Your task to perform on an android device: open chrome privacy settings Image 0: 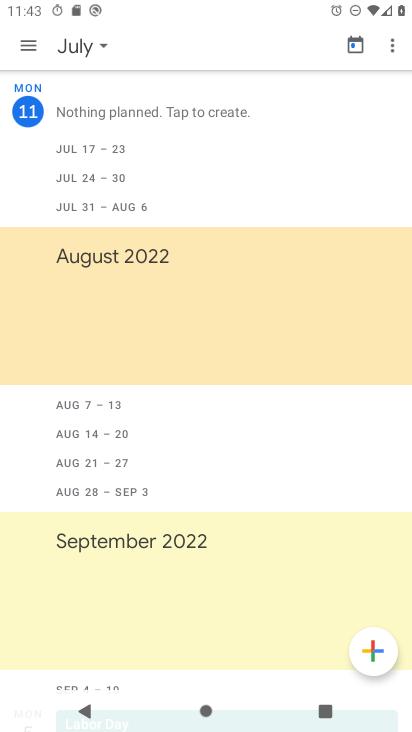
Step 0: press back button
Your task to perform on an android device: open chrome privacy settings Image 1: 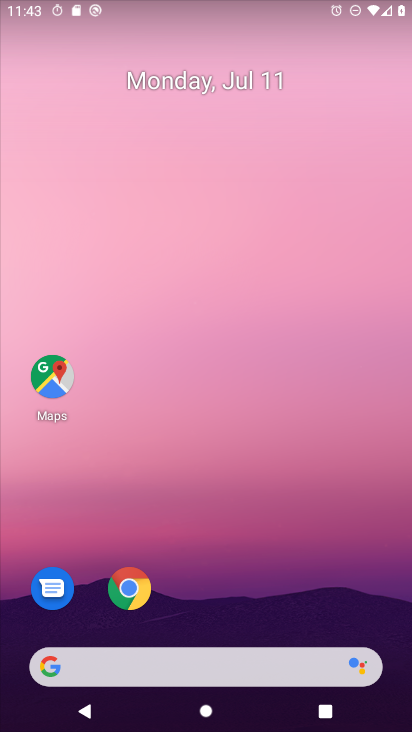
Step 1: click (133, 596)
Your task to perform on an android device: open chrome privacy settings Image 2: 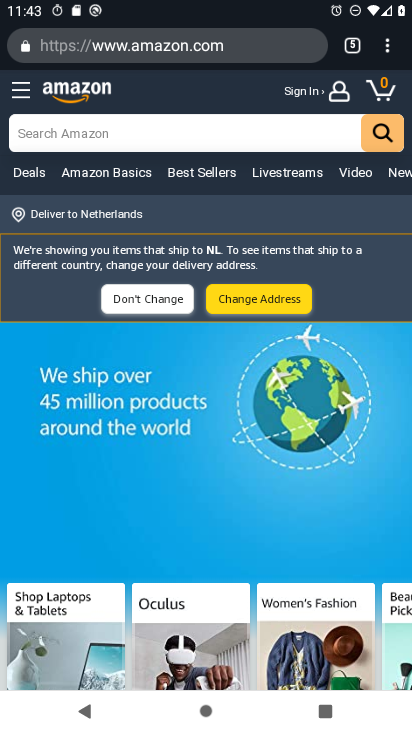
Step 2: drag from (385, 42) to (234, 544)
Your task to perform on an android device: open chrome privacy settings Image 3: 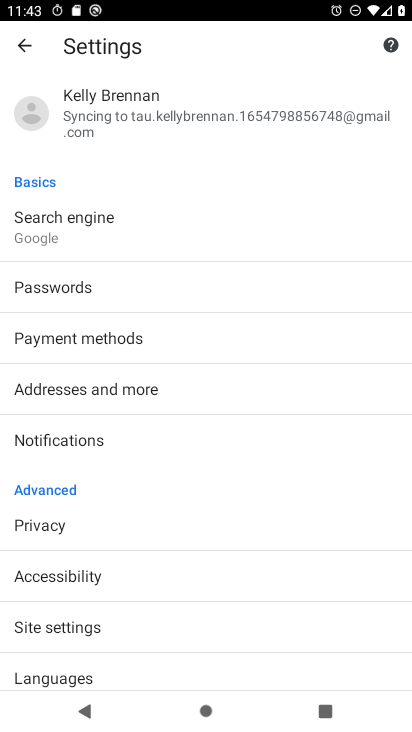
Step 3: click (52, 541)
Your task to perform on an android device: open chrome privacy settings Image 4: 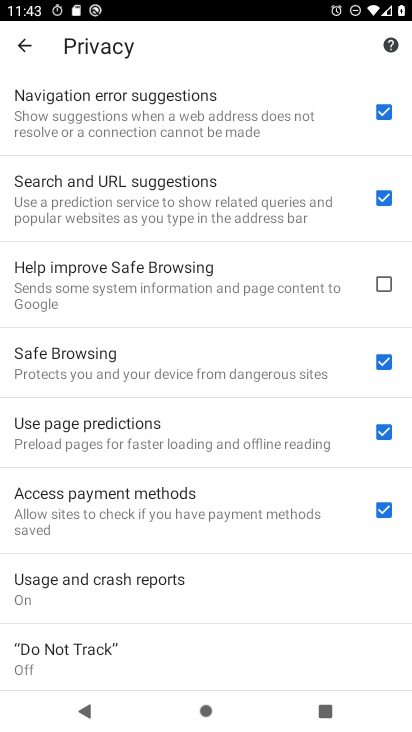
Step 4: task complete